Your task to perform on an android device: empty trash in the gmail app Image 0: 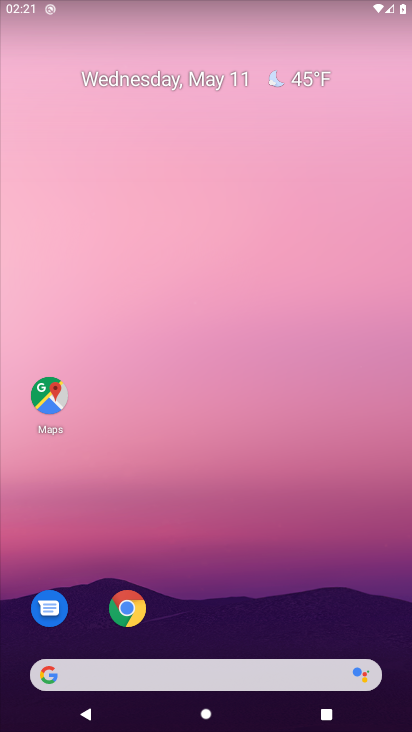
Step 0: drag from (197, 627) to (242, 125)
Your task to perform on an android device: empty trash in the gmail app Image 1: 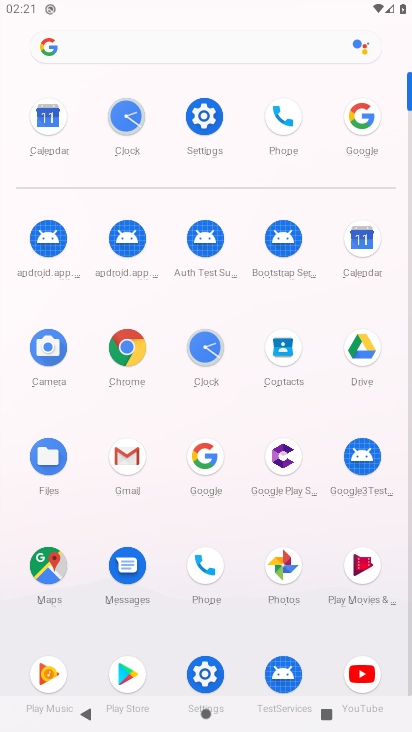
Step 1: click (126, 449)
Your task to perform on an android device: empty trash in the gmail app Image 2: 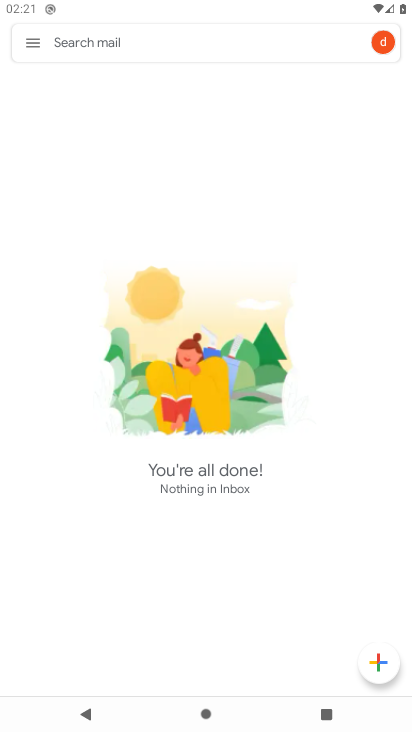
Step 2: click (29, 35)
Your task to perform on an android device: empty trash in the gmail app Image 3: 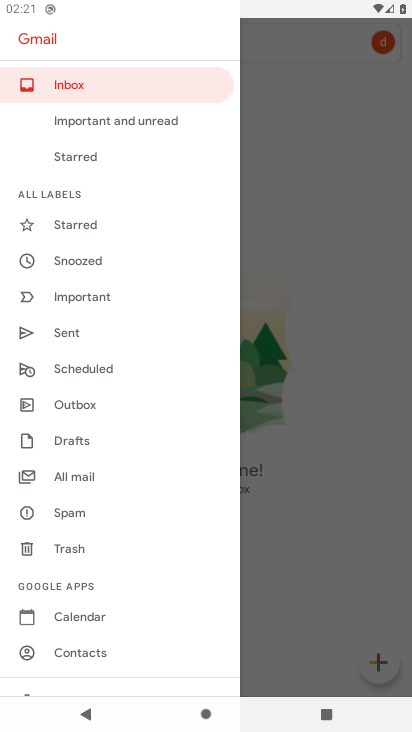
Step 3: click (93, 544)
Your task to perform on an android device: empty trash in the gmail app Image 4: 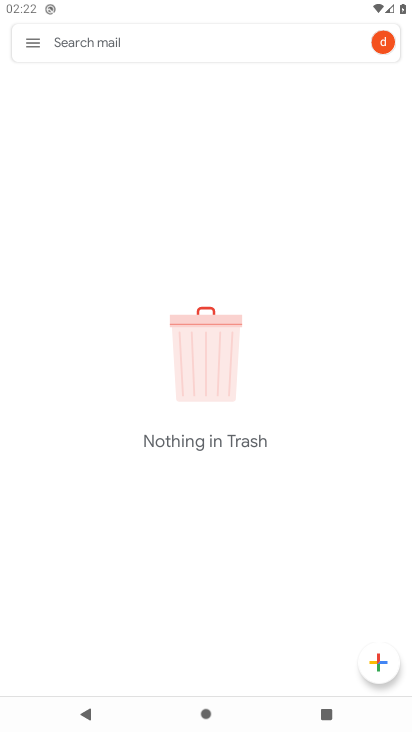
Step 4: task complete